Your task to perform on an android device: change keyboard looks Image 0: 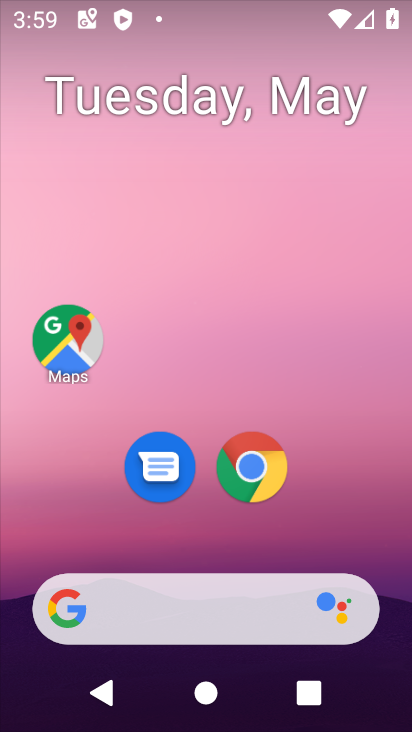
Step 0: drag from (164, 723) to (139, 37)
Your task to perform on an android device: change keyboard looks Image 1: 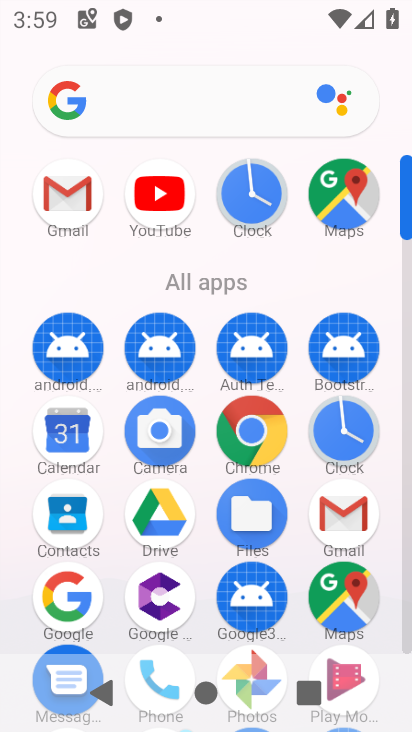
Step 1: drag from (191, 455) to (223, 227)
Your task to perform on an android device: change keyboard looks Image 2: 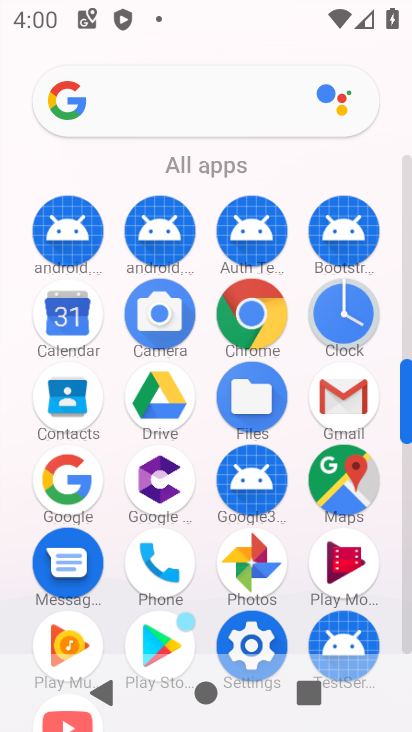
Step 2: click (259, 638)
Your task to perform on an android device: change keyboard looks Image 3: 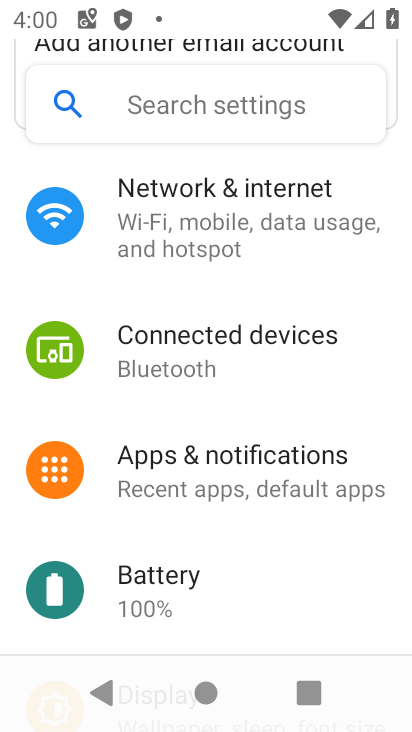
Step 3: drag from (264, 546) to (244, 194)
Your task to perform on an android device: change keyboard looks Image 4: 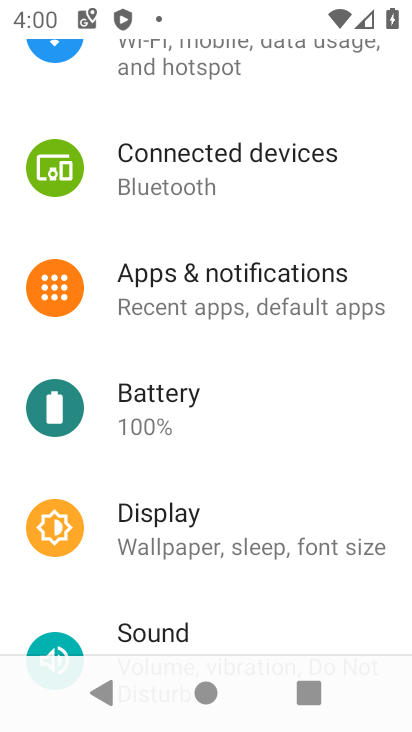
Step 4: drag from (246, 599) to (266, 301)
Your task to perform on an android device: change keyboard looks Image 5: 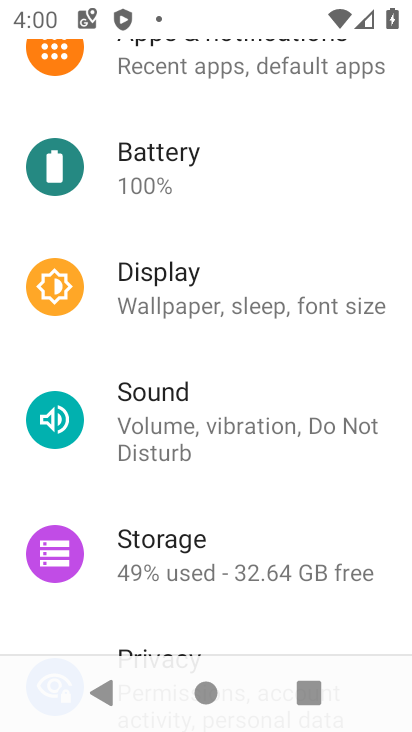
Step 5: drag from (287, 612) to (344, 189)
Your task to perform on an android device: change keyboard looks Image 6: 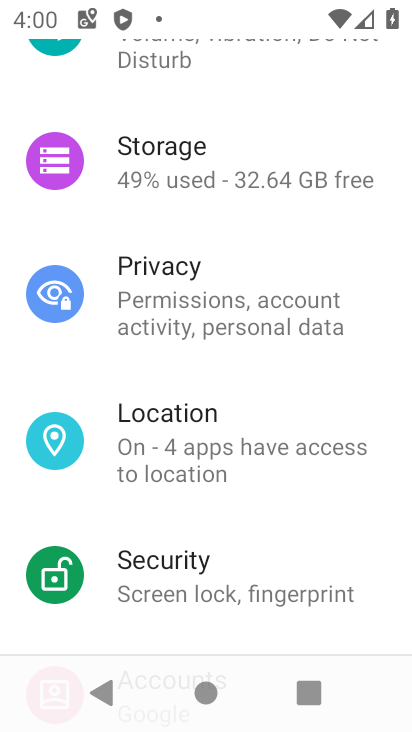
Step 6: drag from (218, 598) to (212, 150)
Your task to perform on an android device: change keyboard looks Image 7: 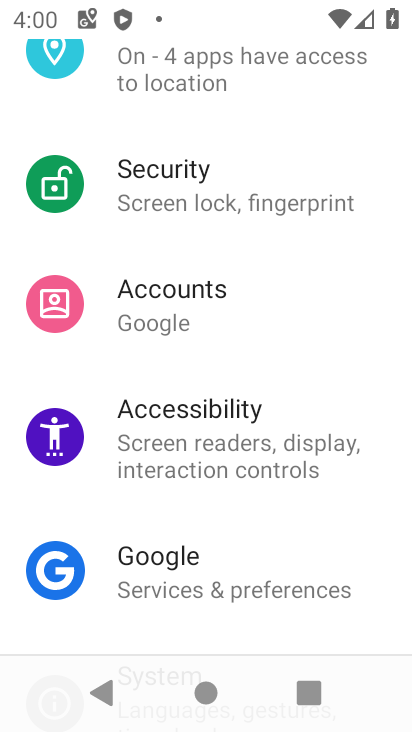
Step 7: drag from (229, 611) to (253, 273)
Your task to perform on an android device: change keyboard looks Image 8: 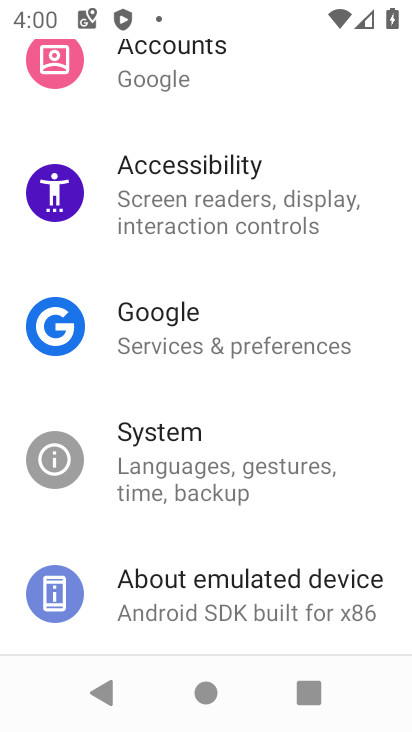
Step 8: click (205, 461)
Your task to perform on an android device: change keyboard looks Image 9: 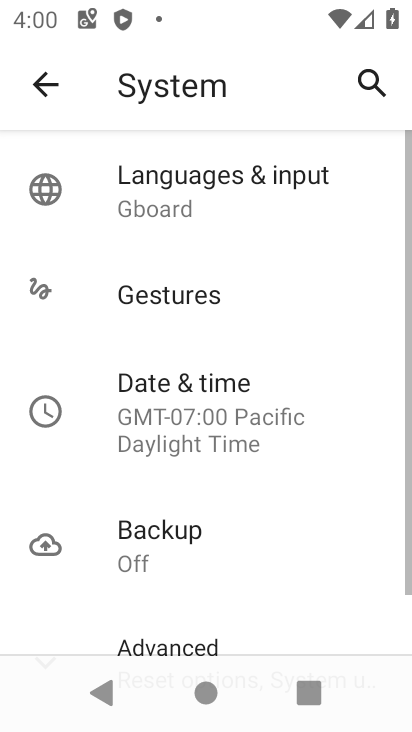
Step 9: click (207, 194)
Your task to perform on an android device: change keyboard looks Image 10: 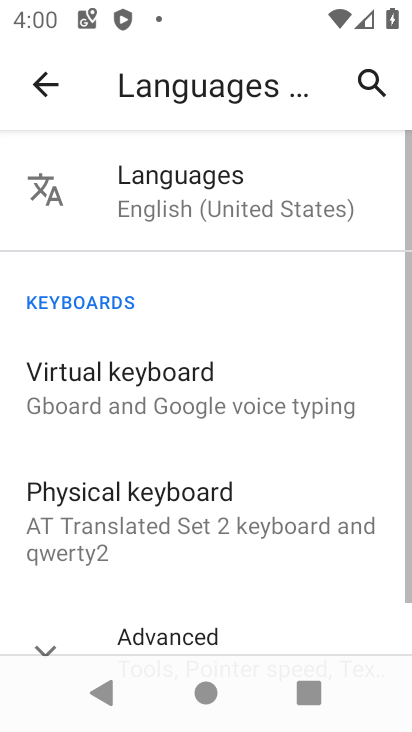
Step 10: click (167, 399)
Your task to perform on an android device: change keyboard looks Image 11: 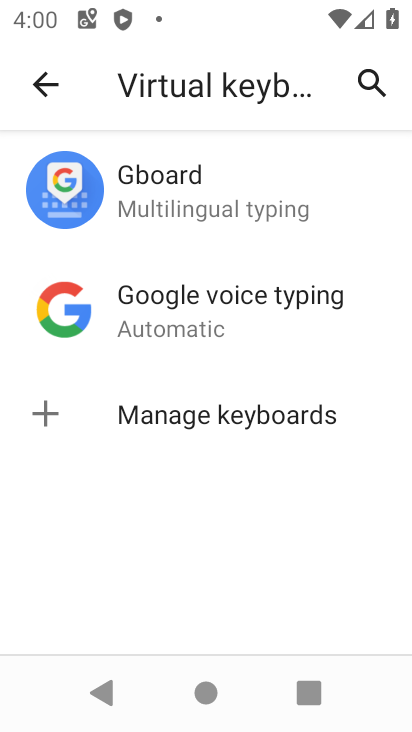
Step 11: click (166, 211)
Your task to perform on an android device: change keyboard looks Image 12: 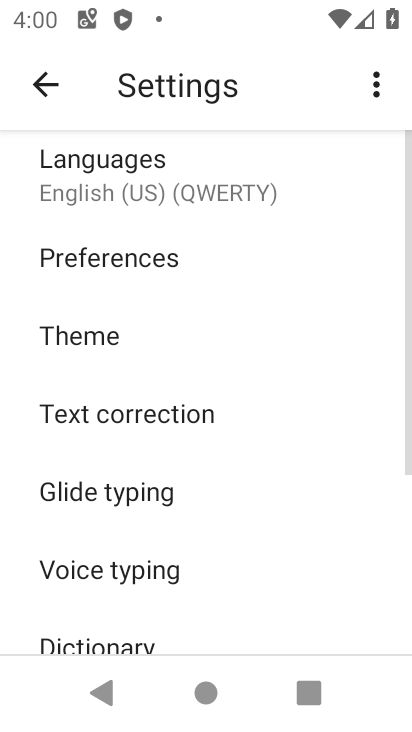
Step 12: click (115, 350)
Your task to perform on an android device: change keyboard looks Image 13: 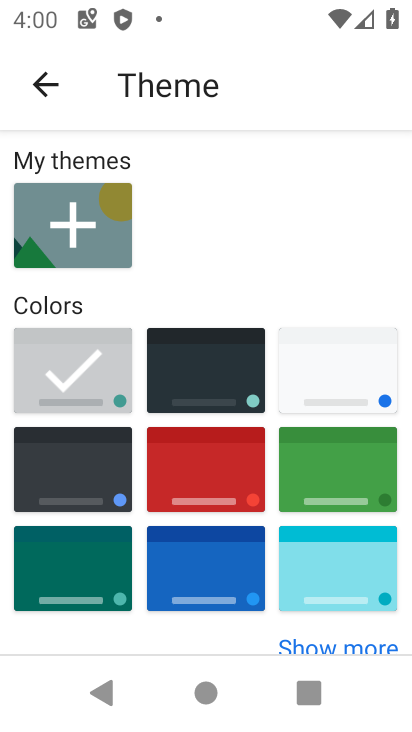
Step 13: click (203, 386)
Your task to perform on an android device: change keyboard looks Image 14: 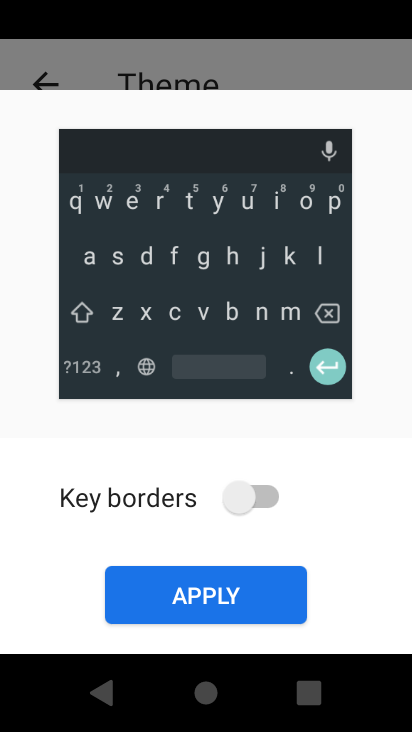
Step 14: click (207, 604)
Your task to perform on an android device: change keyboard looks Image 15: 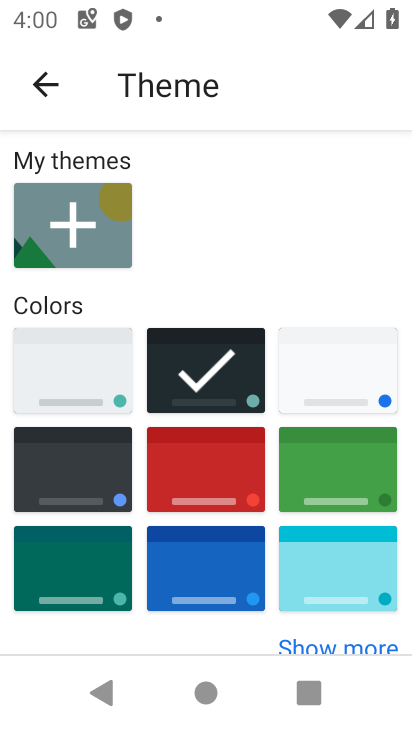
Step 15: task complete